Your task to perform on an android device: Open location settings Image 0: 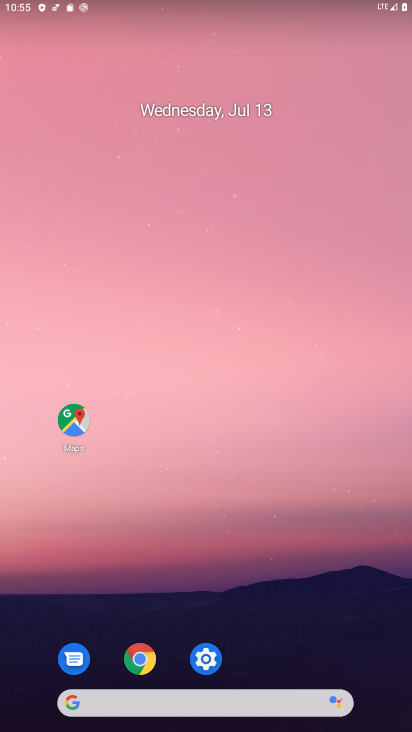
Step 0: drag from (155, 156) to (109, 25)
Your task to perform on an android device: Open location settings Image 1: 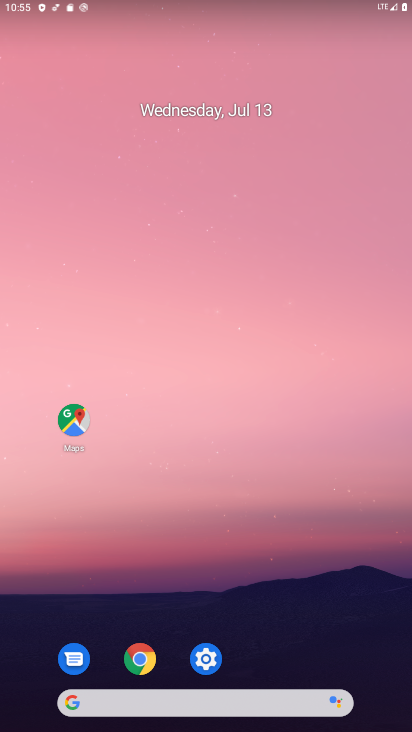
Step 1: drag from (205, 666) to (139, 201)
Your task to perform on an android device: Open location settings Image 2: 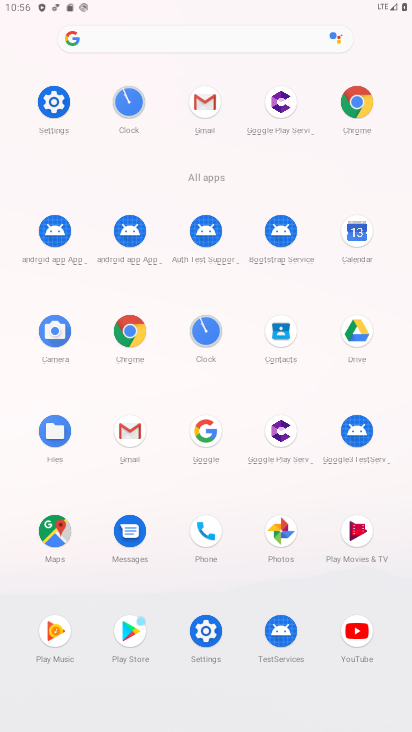
Step 2: click (222, 623)
Your task to perform on an android device: Open location settings Image 3: 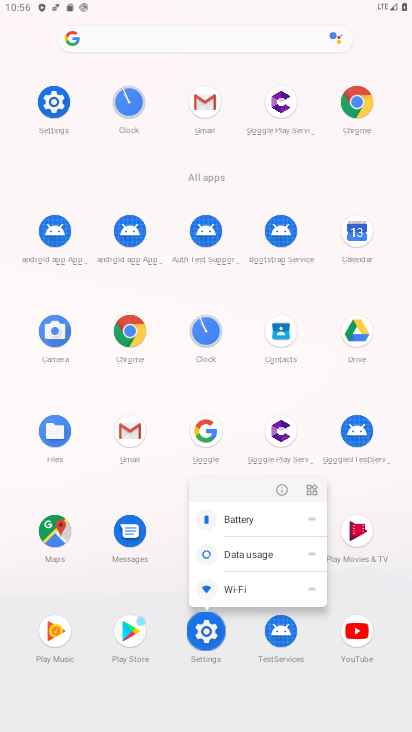
Step 3: click (209, 631)
Your task to perform on an android device: Open location settings Image 4: 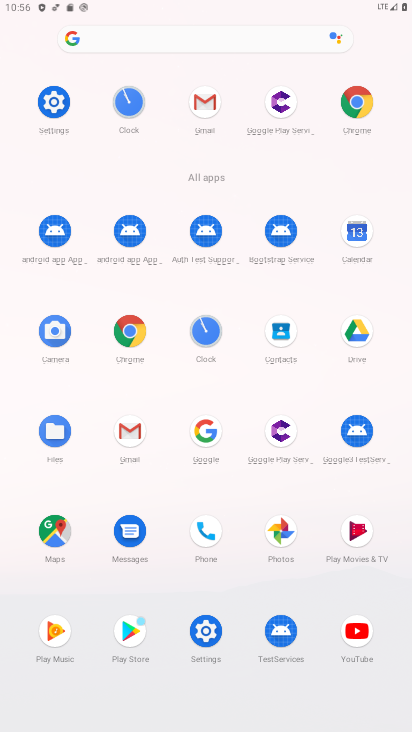
Step 4: click (209, 631)
Your task to perform on an android device: Open location settings Image 5: 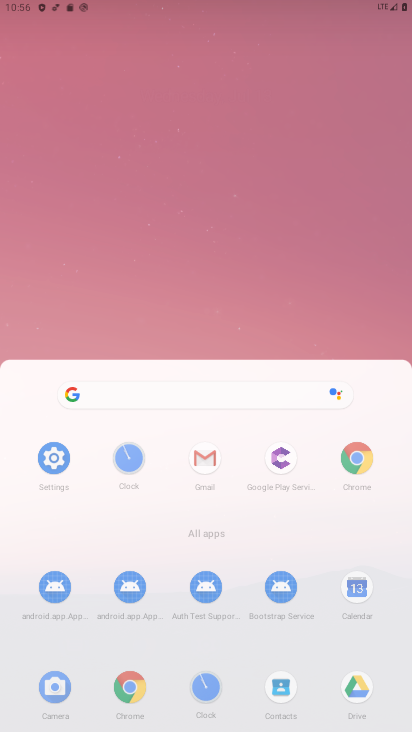
Step 5: click (209, 631)
Your task to perform on an android device: Open location settings Image 6: 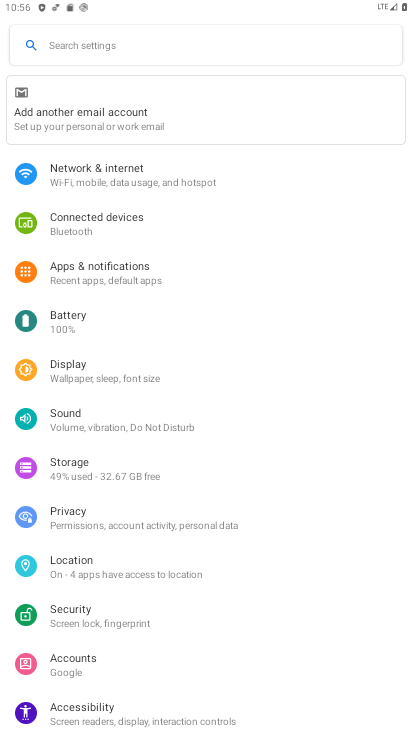
Step 6: click (97, 567)
Your task to perform on an android device: Open location settings Image 7: 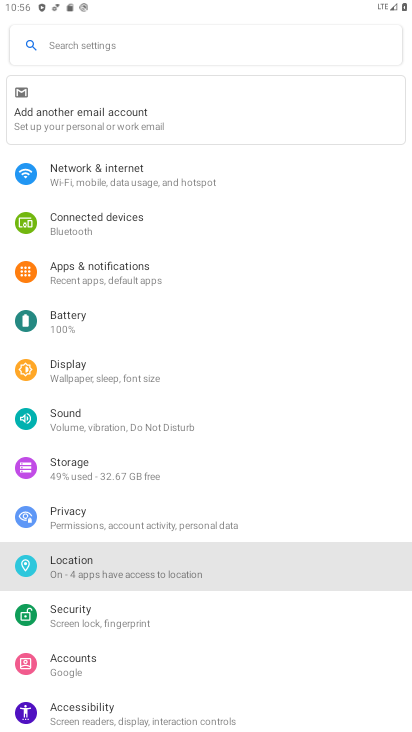
Step 7: click (102, 573)
Your task to perform on an android device: Open location settings Image 8: 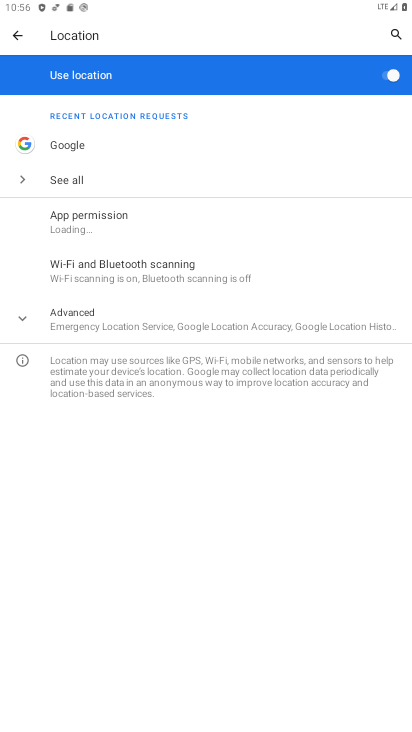
Step 8: click (114, 569)
Your task to perform on an android device: Open location settings Image 9: 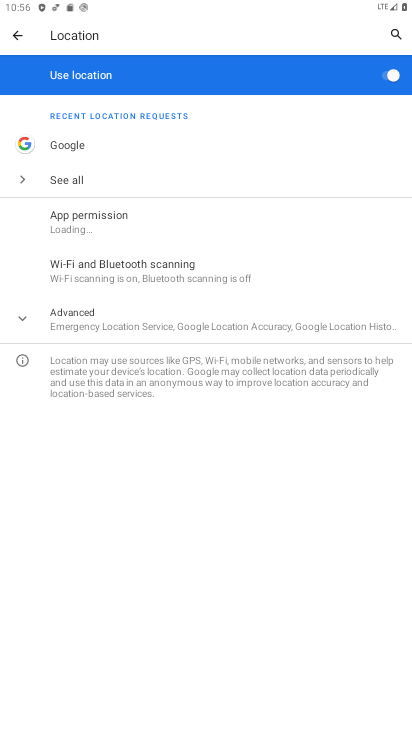
Step 9: click (115, 551)
Your task to perform on an android device: Open location settings Image 10: 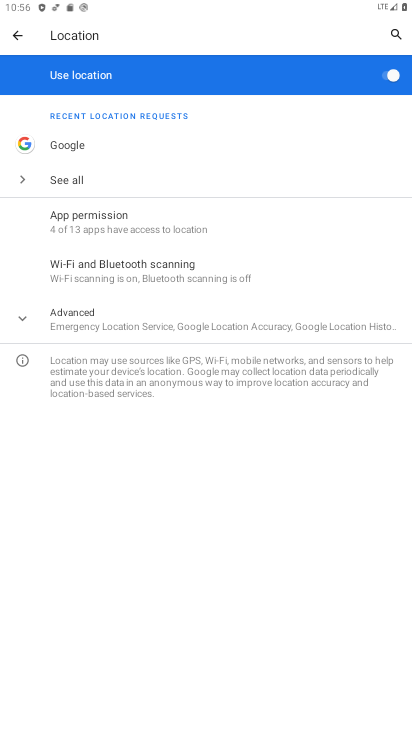
Step 10: click (105, 319)
Your task to perform on an android device: Open location settings Image 11: 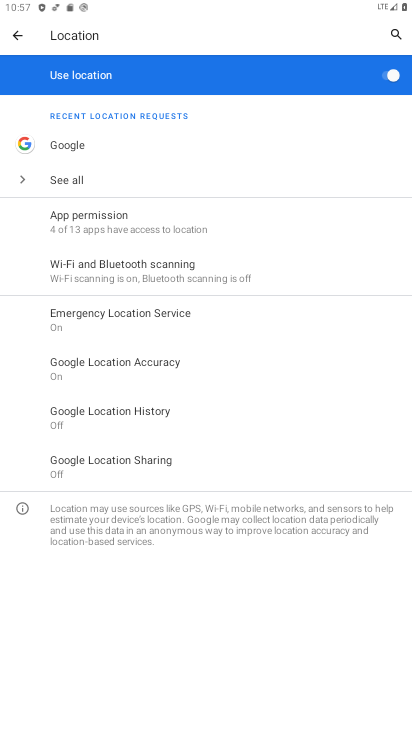
Step 11: task complete